Your task to perform on an android device: allow notifications from all sites in the chrome app Image 0: 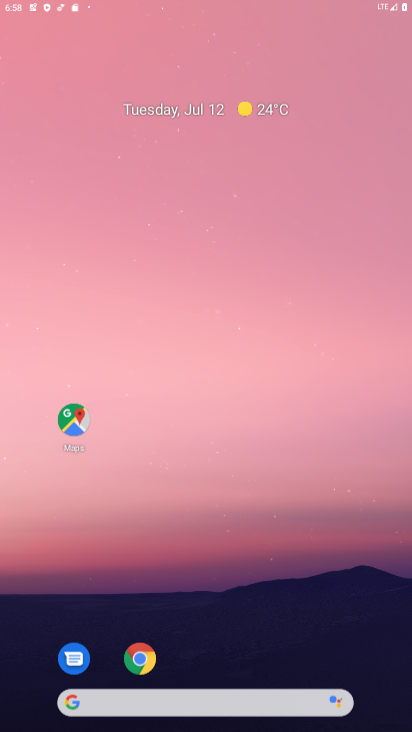
Step 0: drag from (354, 594) to (185, 2)
Your task to perform on an android device: allow notifications from all sites in the chrome app Image 1: 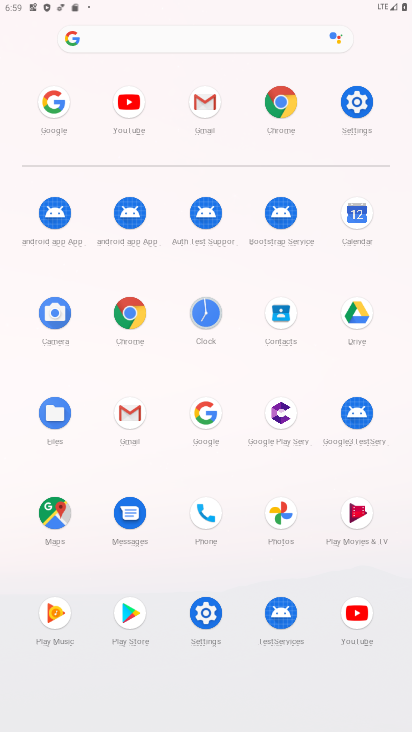
Step 1: click (283, 109)
Your task to perform on an android device: allow notifications from all sites in the chrome app Image 2: 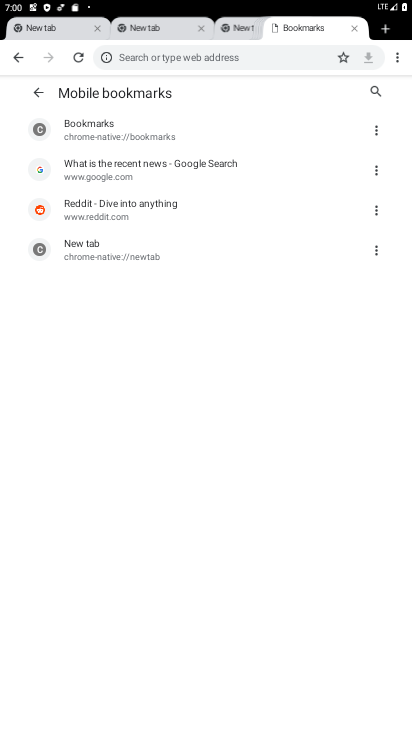
Step 2: click (394, 53)
Your task to perform on an android device: allow notifications from all sites in the chrome app Image 3: 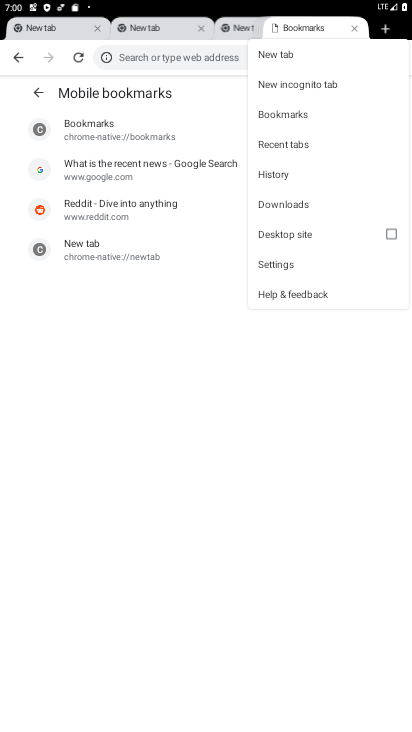
Step 3: click (278, 261)
Your task to perform on an android device: allow notifications from all sites in the chrome app Image 4: 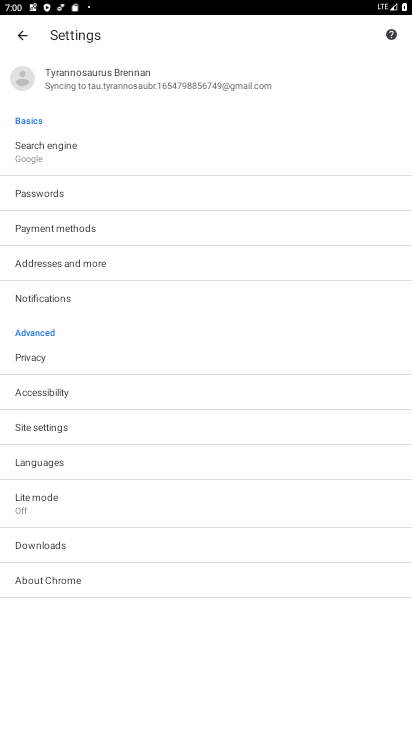
Step 4: click (85, 296)
Your task to perform on an android device: allow notifications from all sites in the chrome app Image 5: 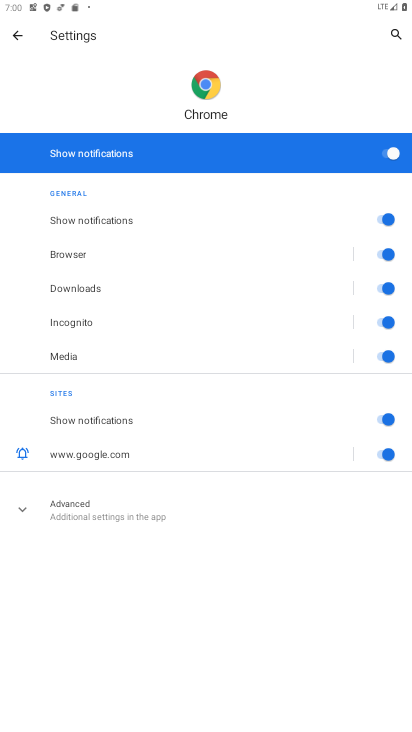
Step 5: task complete